Your task to perform on an android device: turn off improve location accuracy Image 0: 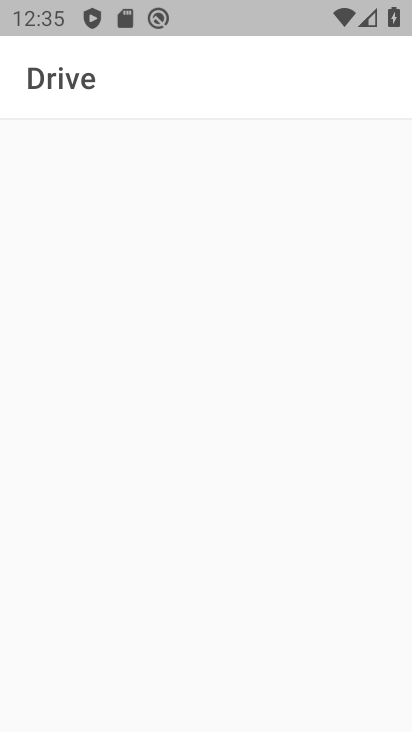
Step 0: press home button
Your task to perform on an android device: turn off improve location accuracy Image 1: 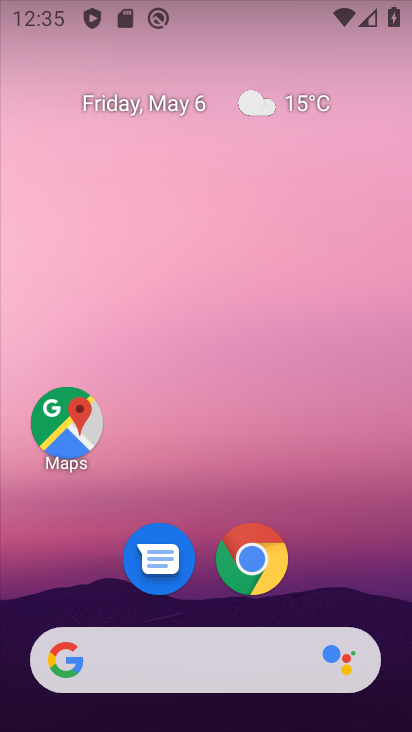
Step 1: drag from (208, 604) to (231, 10)
Your task to perform on an android device: turn off improve location accuracy Image 2: 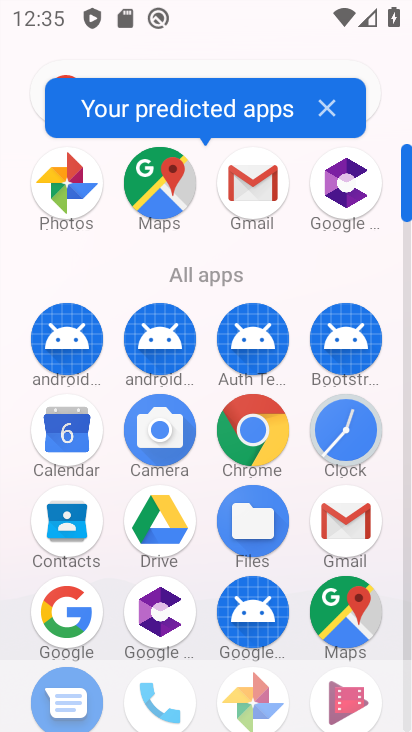
Step 2: drag from (199, 513) to (217, 206)
Your task to perform on an android device: turn off improve location accuracy Image 3: 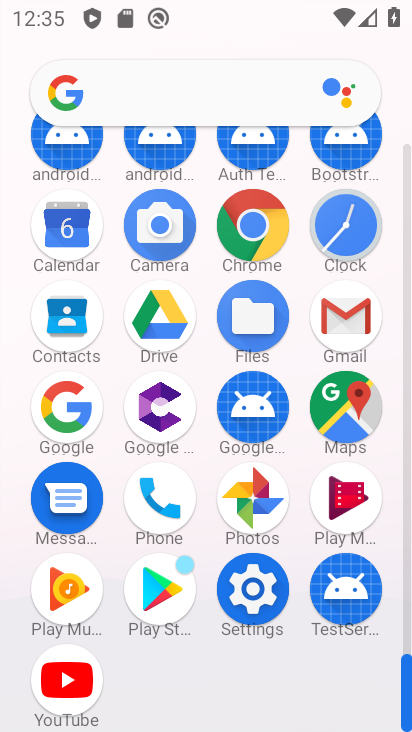
Step 3: click (248, 573)
Your task to perform on an android device: turn off improve location accuracy Image 4: 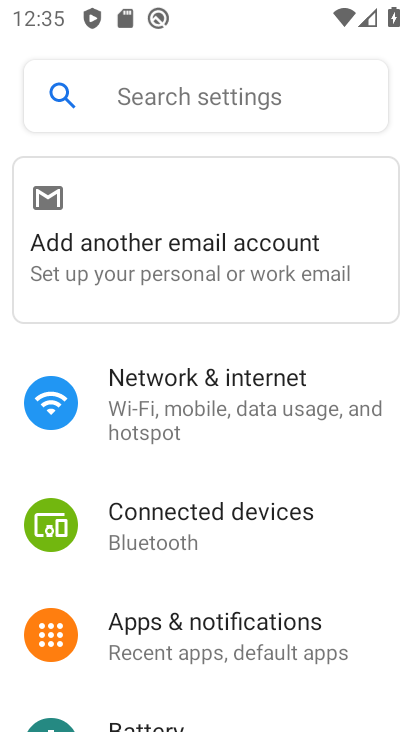
Step 4: drag from (187, 553) to (202, 209)
Your task to perform on an android device: turn off improve location accuracy Image 5: 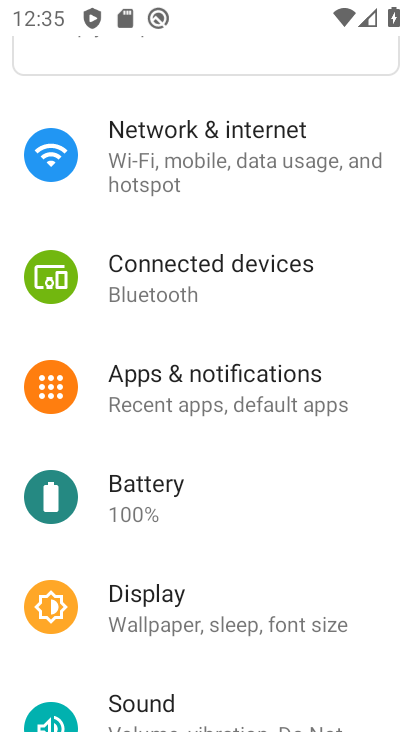
Step 5: drag from (196, 681) to (189, 300)
Your task to perform on an android device: turn off improve location accuracy Image 6: 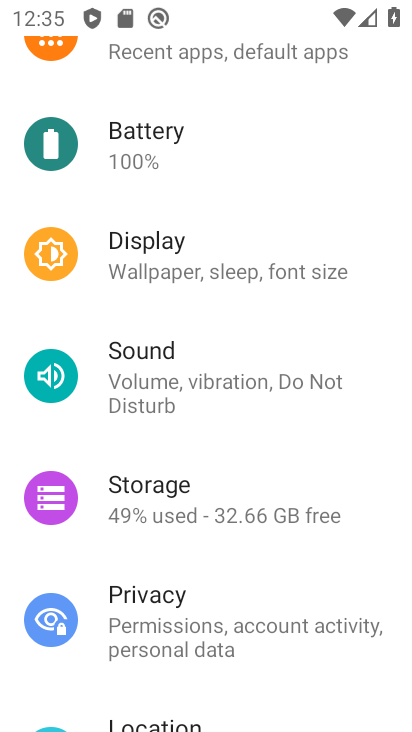
Step 6: click (166, 719)
Your task to perform on an android device: turn off improve location accuracy Image 7: 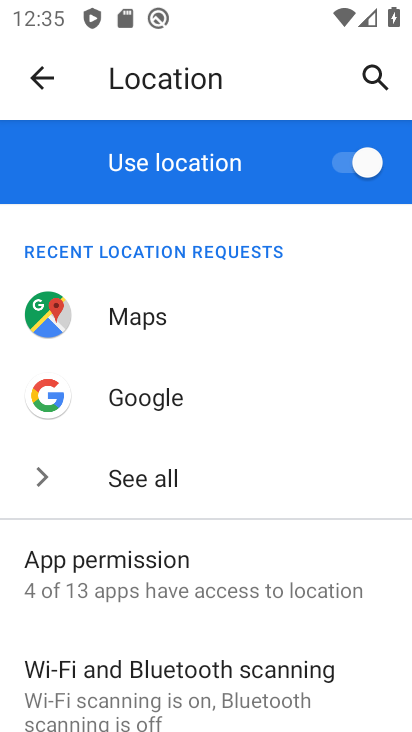
Step 7: drag from (219, 601) to (256, 202)
Your task to perform on an android device: turn off improve location accuracy Image 8: 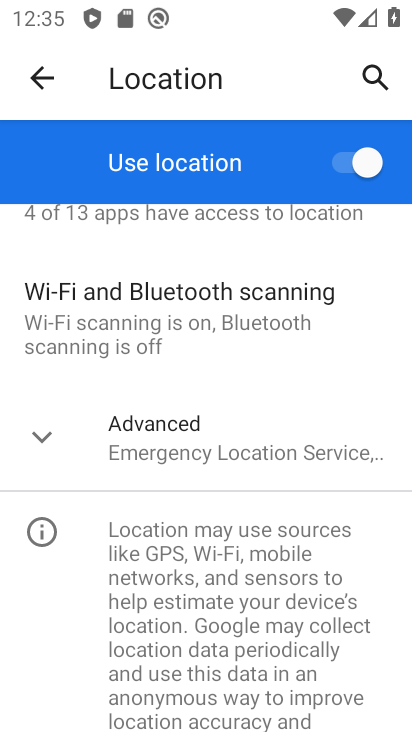
Step 8: click (186, 429)
Your task to perform on an android device: turn off improve location accuracy Image 9: 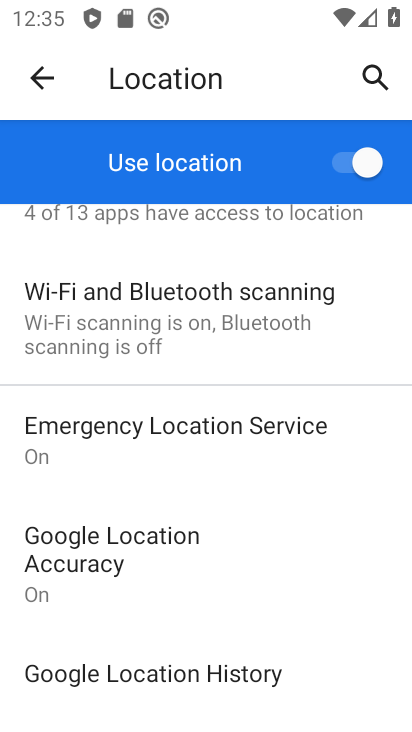
Step 9: drag from (149, 611) to (191, 311)
Your task to perform on an android device: turn off improve location accuracy Image 10: 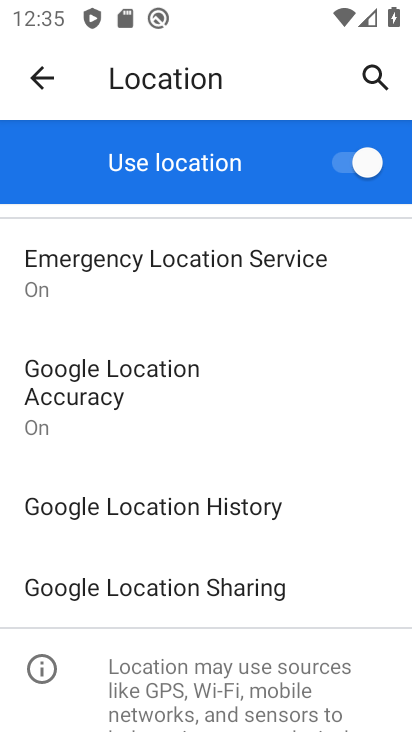
Step 10: click (113, 406)
Your task to perform on an android device: turn off improve location accuracy Image 11: 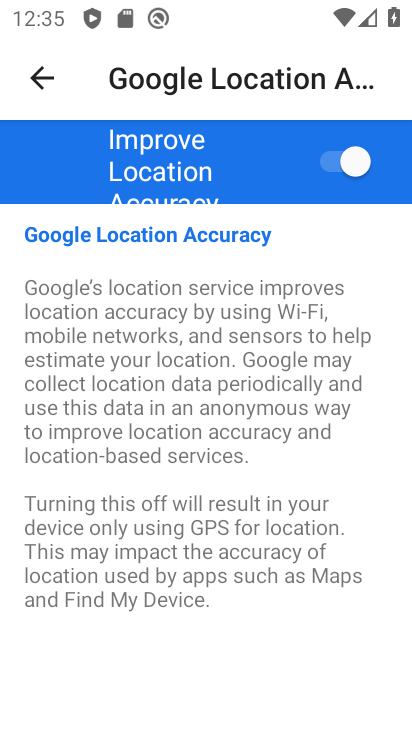
Step 11: click (345, 160)
Your task to perform on an android device: turn off improve location accuracy Image 12: 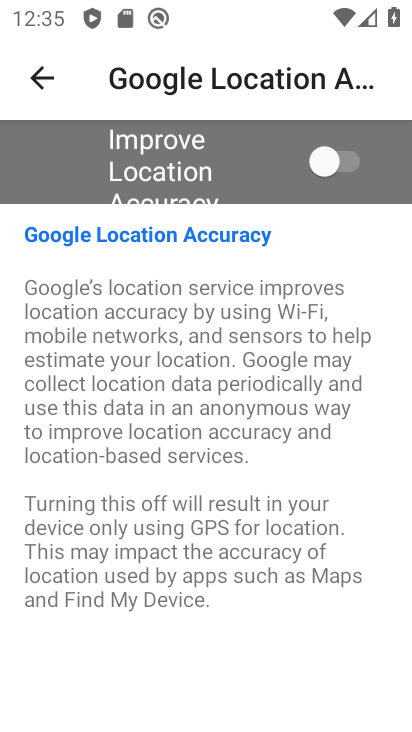
Step 12: task complete